Your task to perform on an android device: turn pop-ups on in chrome Image 0: 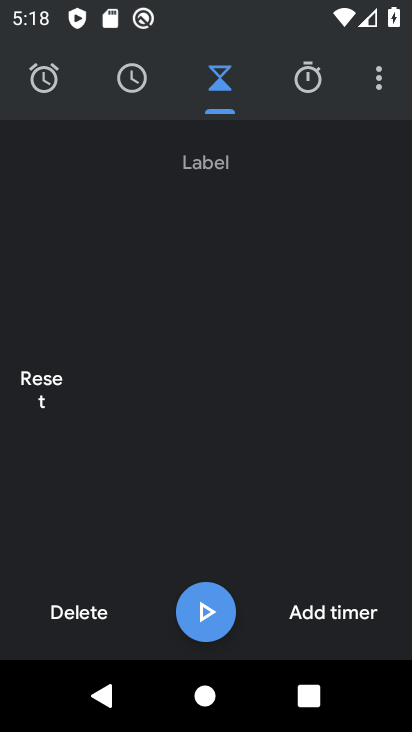
Step 0: press back button
Your task to perform on an android device: turn pop-ups on in chrome Image 1: 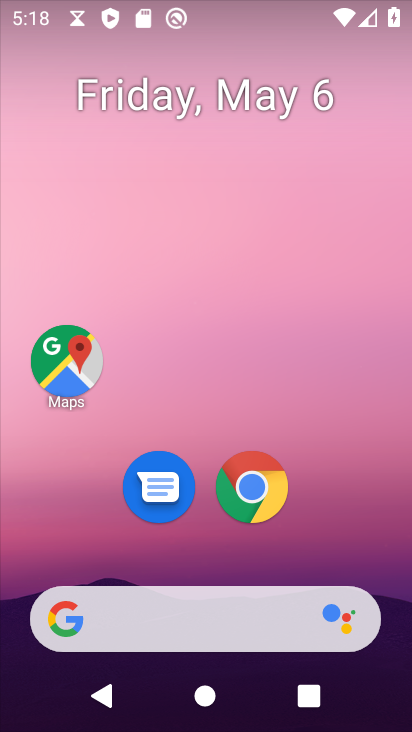
Step 1: click (251, 488)
Your task to perform on an android device: turn pop-ups on in chrome Image 2: 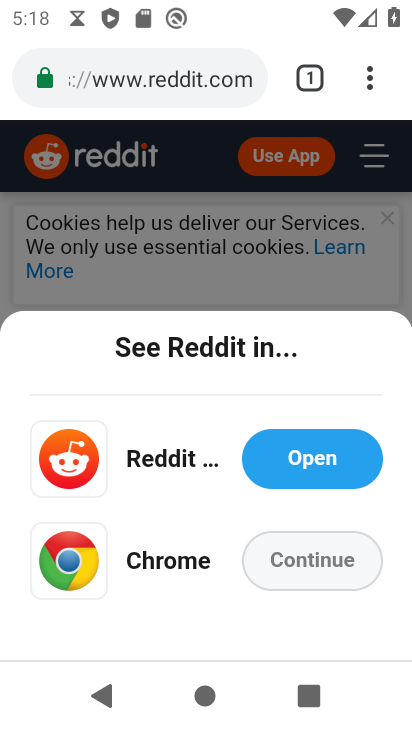
Step 2: click (375, 81)
Your task to perform on an android device: turn pop-ups on in chrome Image 3: 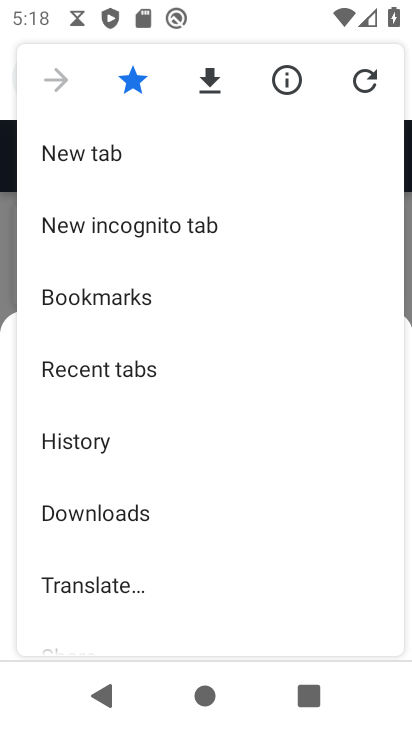
Step 3: drag from (153, 454) to (194, 298)
Your task to perform on an android device: turn pop-ups on in chrome Image 4: 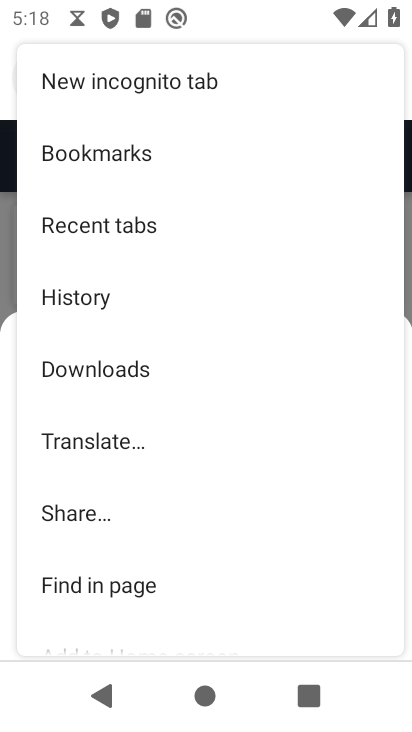
Step 4: drag from (132, 538) to (177, 406)
Your task to perform on an android device: turn pop-ups on in chrome Image 5: 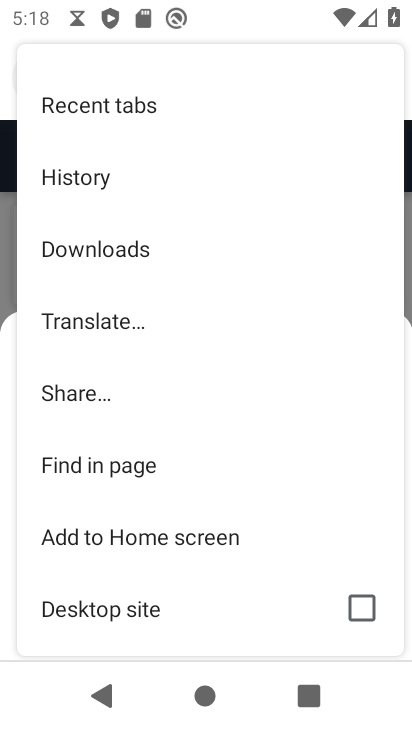
Step 5: drag from (120, 582) to (197, 418)
Your task to perform on an android device: turn pop-ups on in chrome Image 6: 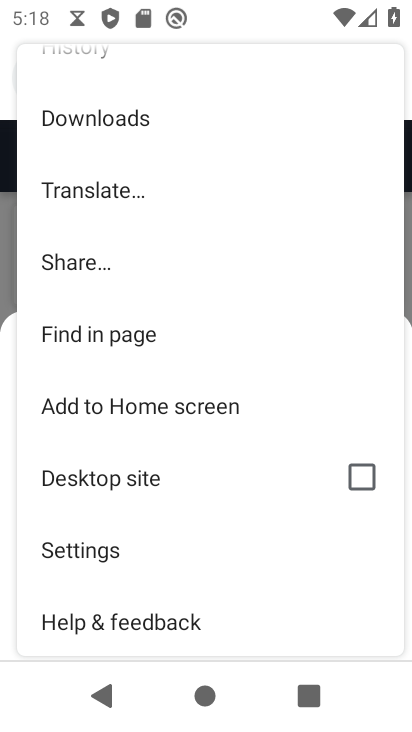
Step 6: click (77, 553)
Your task to perform on an android device: turn pop-ups on in chrome Image 7: 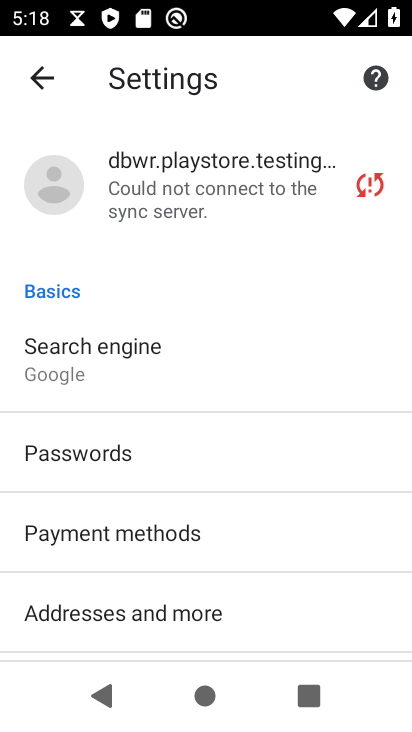
Step 7: drag from (179, 533) to (236, 361)
Your task to perform on an android device: turn pop-ups on in chrome Image 8: 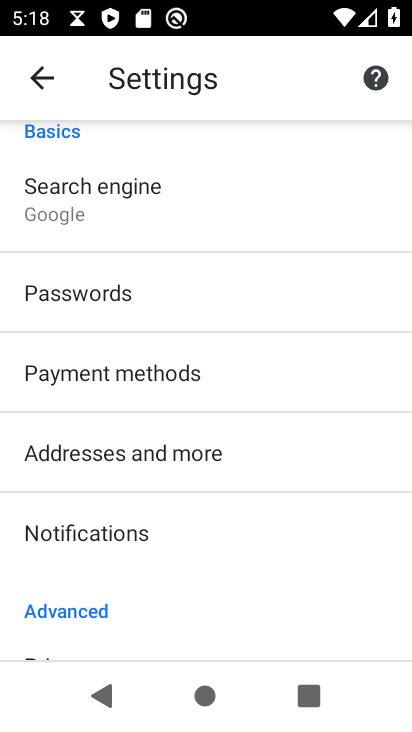
Step 8: drag from (157, 534) to (215, 371)
Your task to perform on an android device: turn pop-ups on in chrome Image 9: 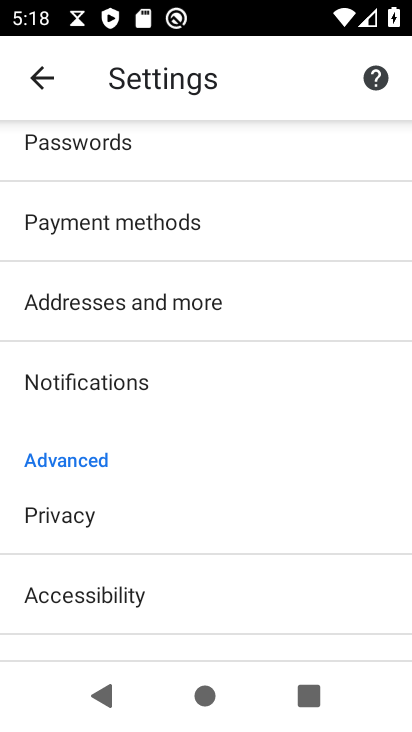
Step 9: drag from (166, 522) to (237, 393)
Your task to perform on an android device: turn pop-ups on in chrome Image 10: 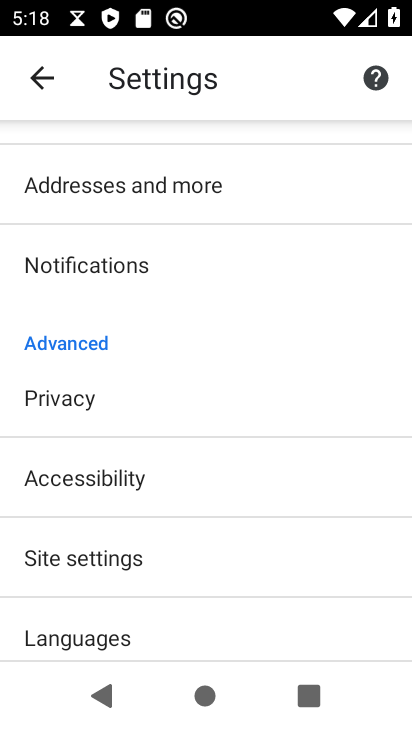
Step 10: drag from (164, 546) to (222, 447)
Your task to perform on an android device: turn pop-ups on in chrome Image 11: 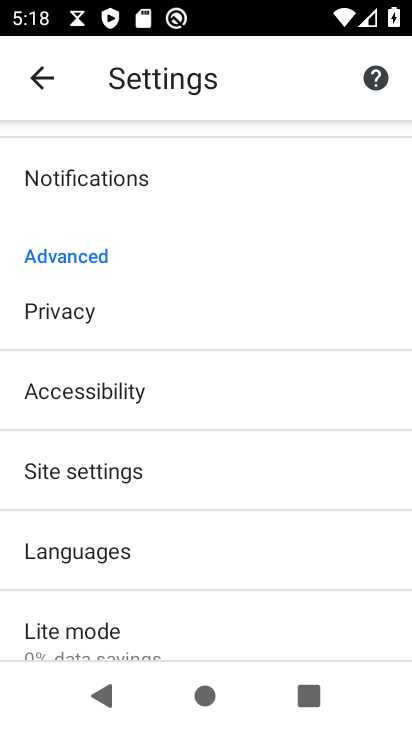
Step 11: click (108, 473)
Your task to perform on an android device: turn pop-ups on in chrome Image 12: 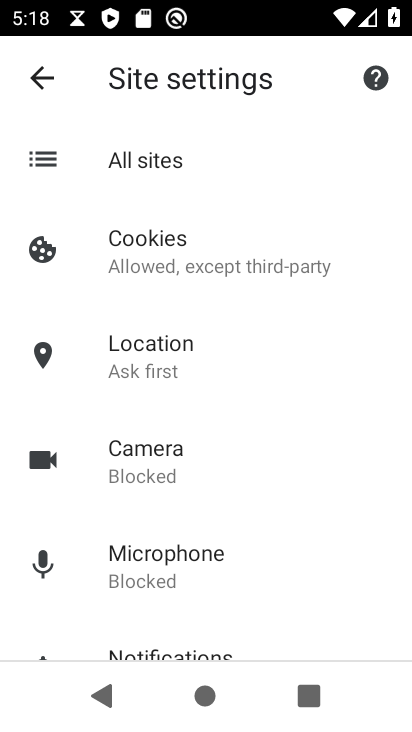
Step 12: drag from (212, 515) to (256, 336)
Your task to perform on an android device: turn pop-ups on in chrome Image 13: 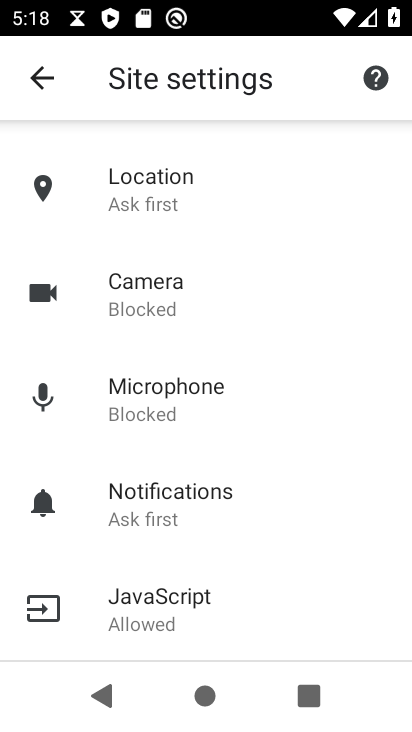
Step 13: drag from (210, 537) to (268, 387)
Your task to perform on an android device: turn pop-ups on in chrome Image 14: 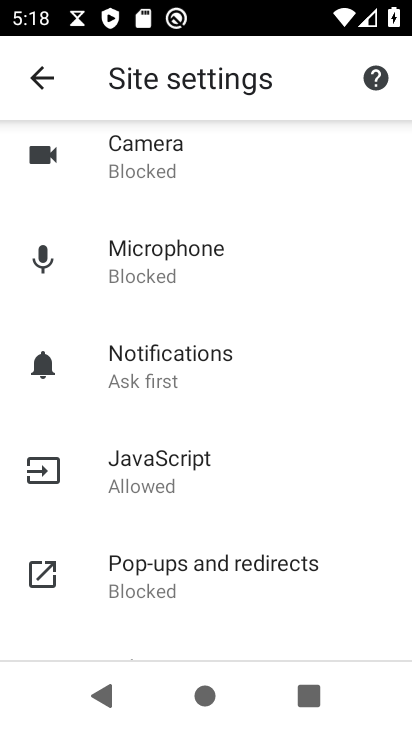
Step 14: click (180, 576)
Your task to perform on an android device: turn pop-ups on in chrome Image 15: 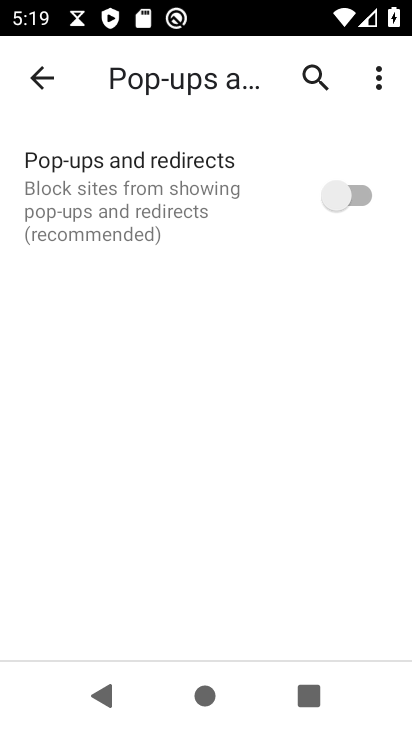
Step 15: click (342, 191)
Your task to perform on an android device: turn pop-ups on in chrome Image 16: 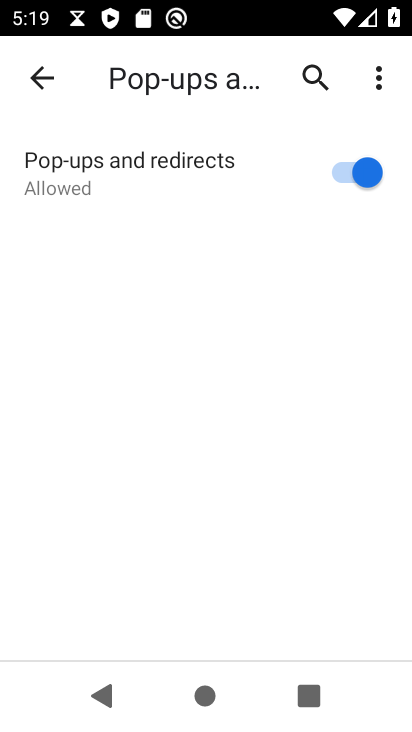
Step 16: task complete